Your task to perform on an android device: turn off airplane mode Image 0: 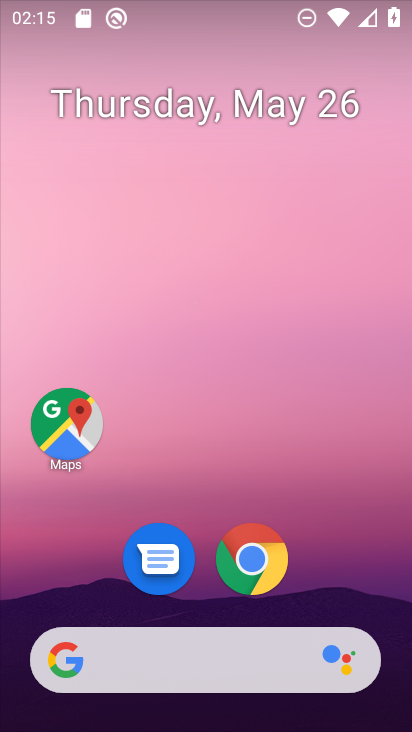
Step 0: drag from (210, 668) to (298, 0)
Your task to perform on an android device: turn off airplane mode Image 1: 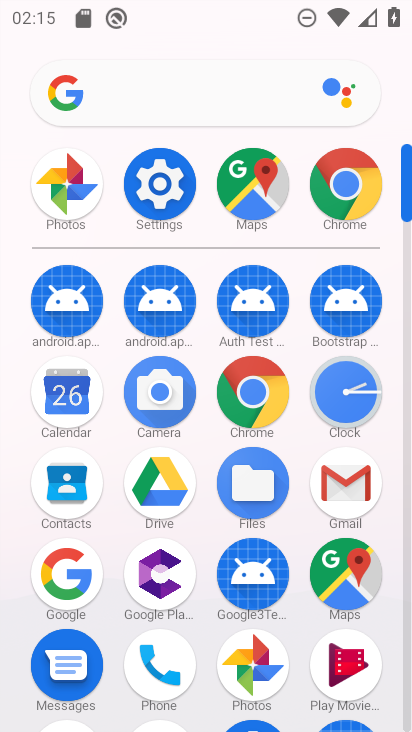
Step 1: click (157, 198)
Your task to perform on an android device: turn off airplane mode Image 2: 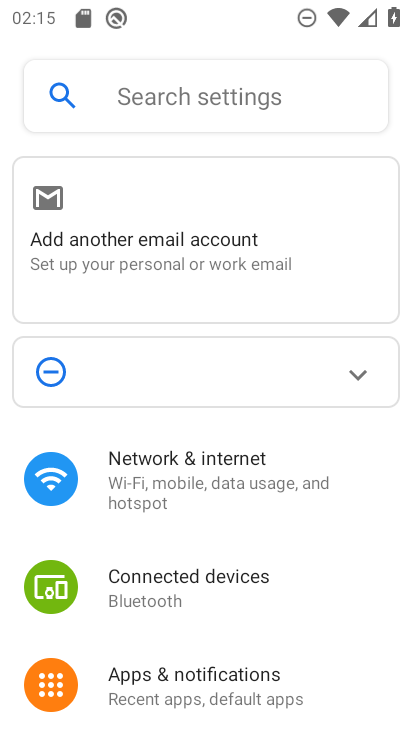
Step 2: click (236, 460)
Your task to perform on an android device: turn off airplane mode Image 3: 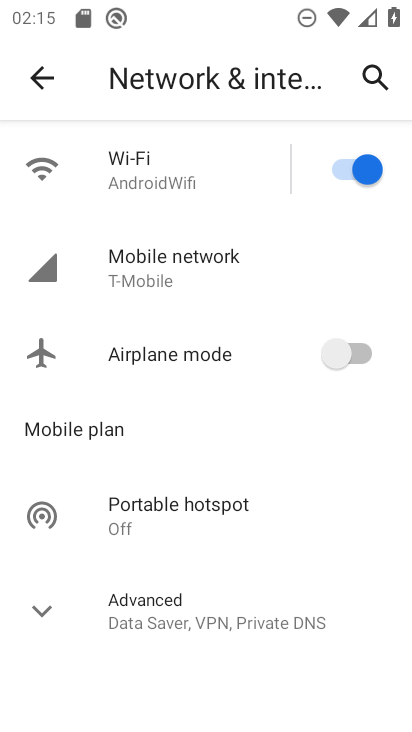
Step 3: task complete